Your task to perform on an android device: toggle notifications settings in the gmail app Image 0: 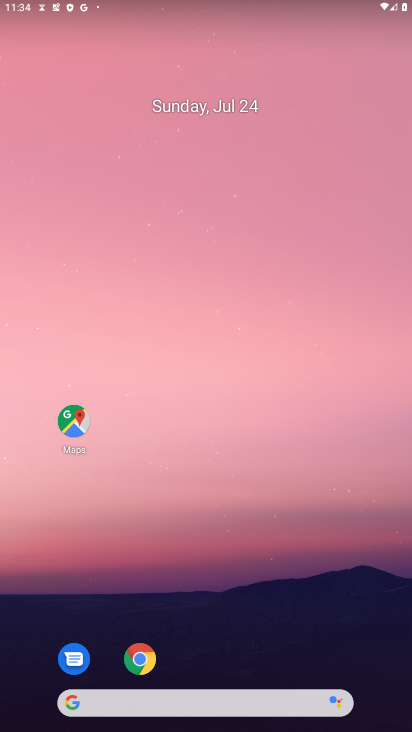
Step 0: drag from (251, 621) to (255, 133)
Your task to perform on an android device: toggle notifications settings in the gmail app Image 1: 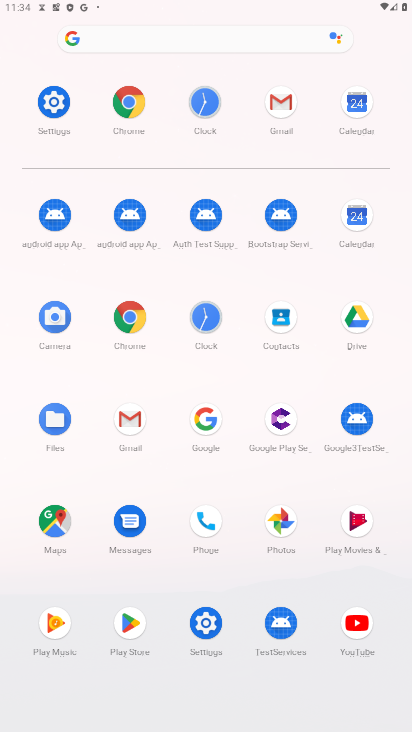
Step 1: click (277, 92)
Your task to perform on an android device: toggle notifications settings in the gmail app Image 2: 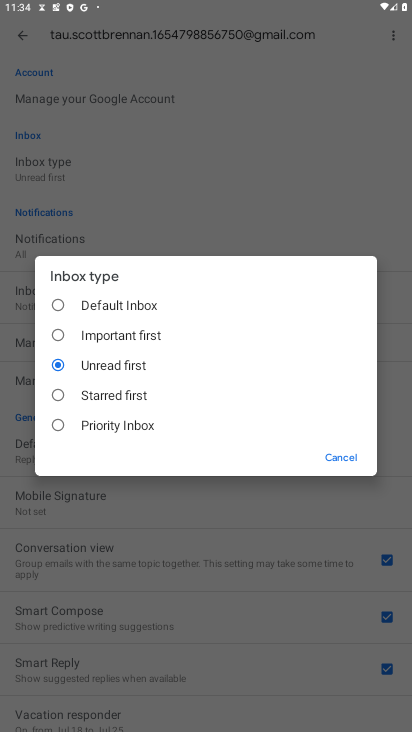
Step 2: click (107, 202)
Your task to perform on an android device: toggle notifications settings in the gmail app Image 3: 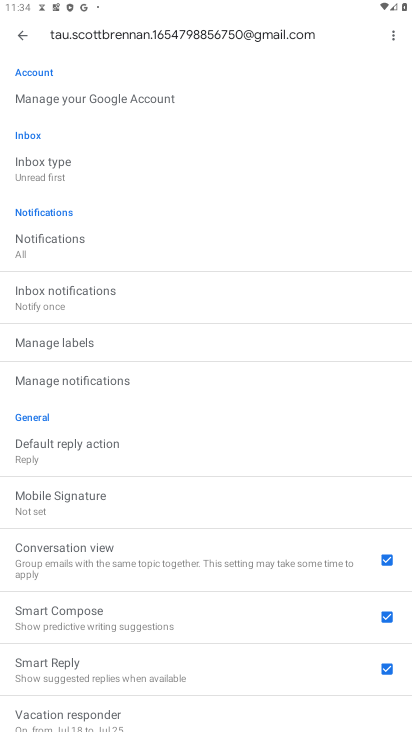
Step 3: click (78, 242)
Your task to perform on an android device: toggle notifications settings in the gmail app Image 4: 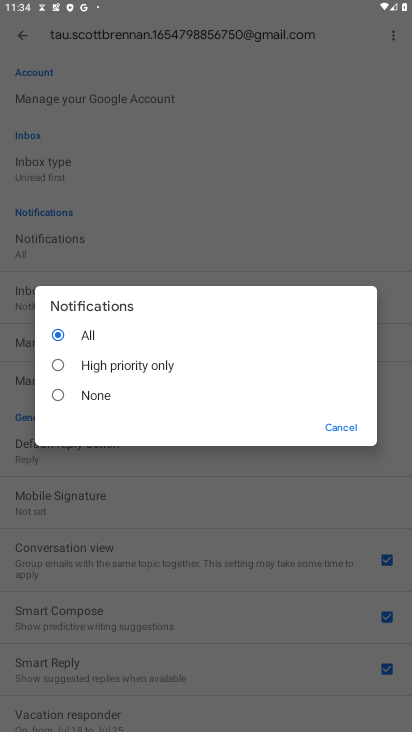
Step 4: click (98, 395)
Your task to perform on an android device: toggle notifications settings in the gmail app Image 5: 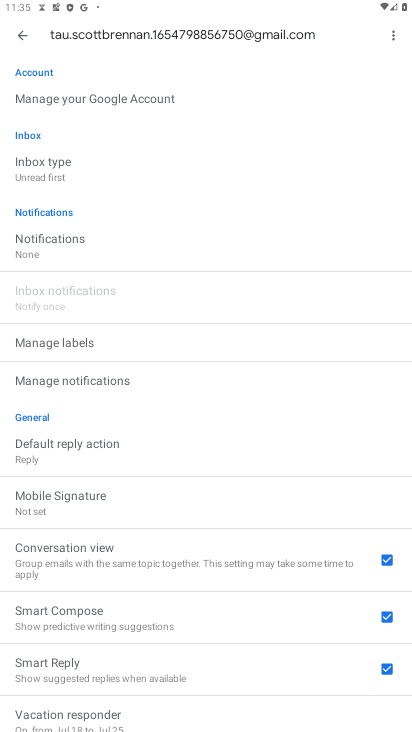
Step 5: task complete